Your task to perform on an android device: Go to Reddit.com Image 0: 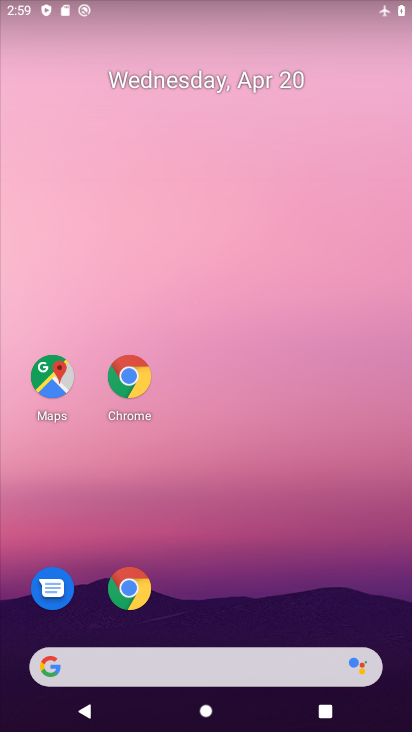
Step 0: drag from (328, 627) to (335, 49)
Your task to perform on an android device: Go to Reddit.com Image 1: 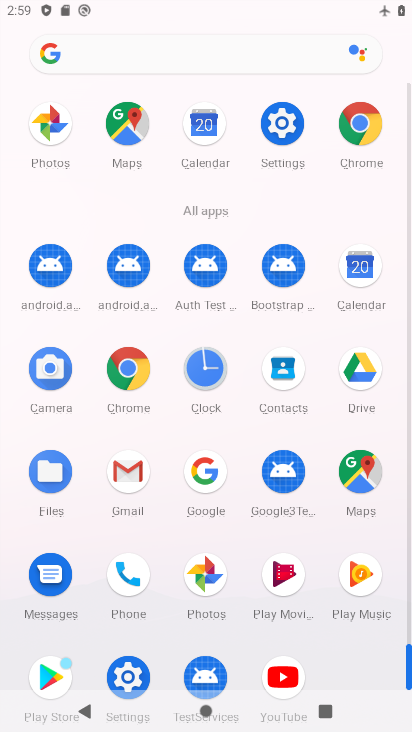
Step 1: click (125, 380)
Your task to perform on an android device: Go to Reddit.com Image 2: 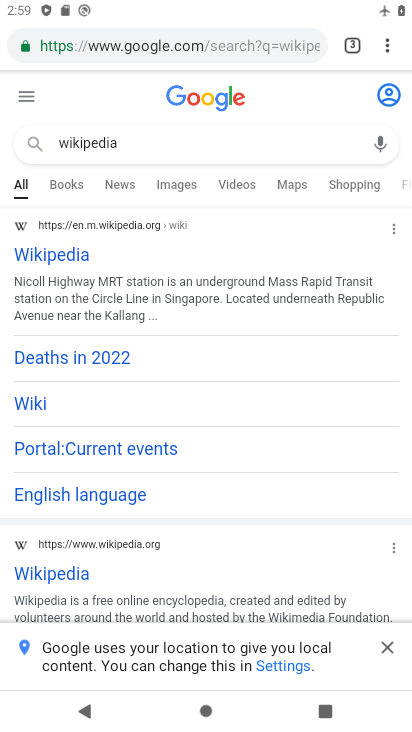
Step 2: click (197, 146)
Your task to perform on an android device: Go to Reddit.com Image 3: 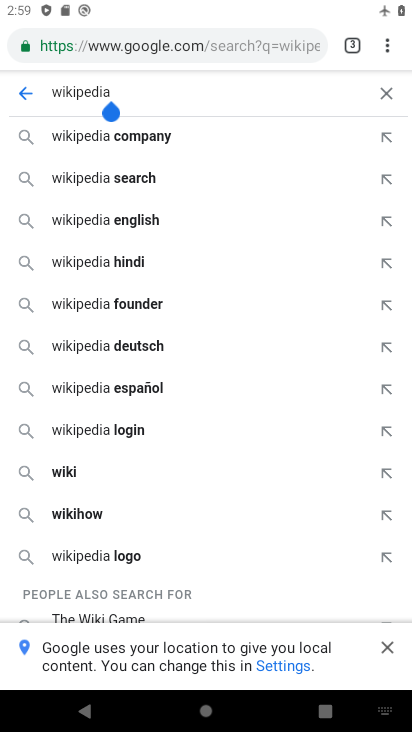
Step 3: click (390, 93)
Your task to perform on an android device: Go to Reddit.com Image 4: 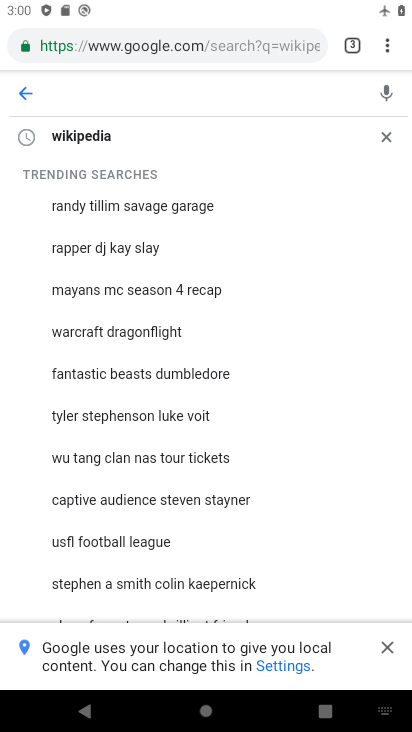
Step 4: type "reddit"
Your task to perform on an android device: Go to Reddit.com Image 5: 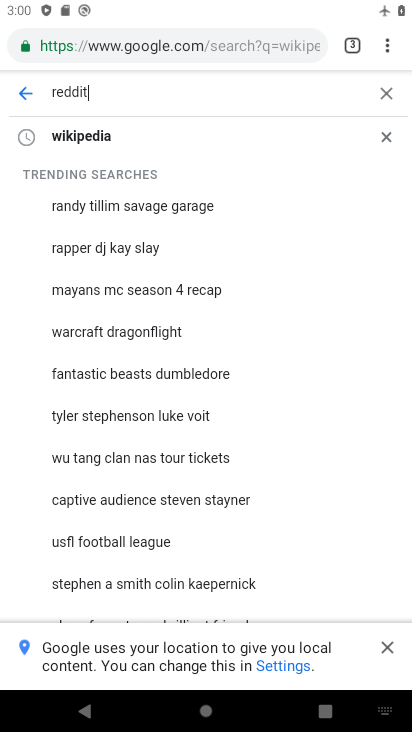
Step 5: click (210, 49)
Your task to perform on an android device: Go to Reddit.com Image 6: 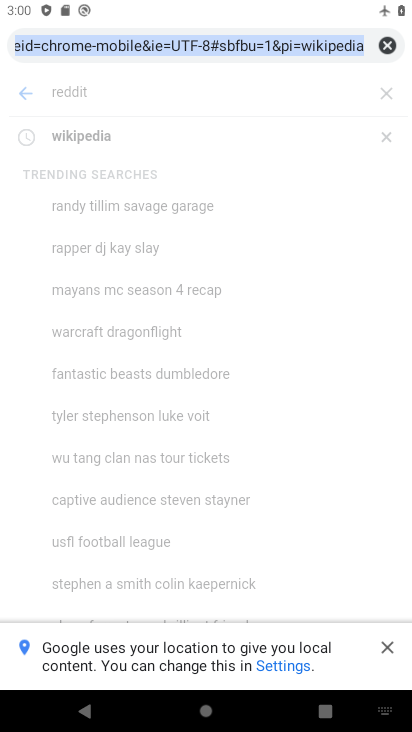
Step 6: click (389, 47)
Your task to perform on an android device: Go to Reddit.com Image 7: 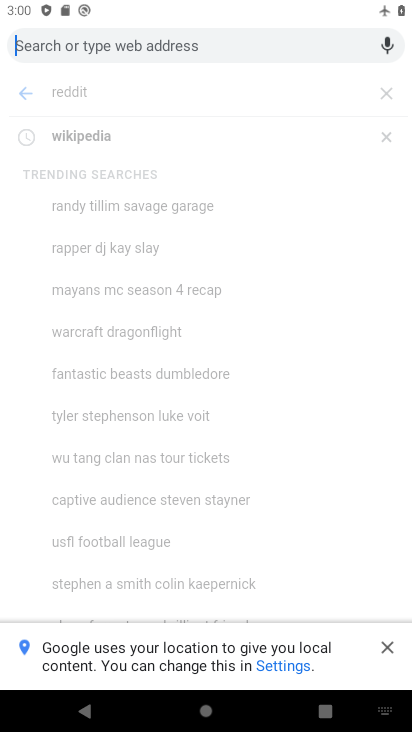
Step 7: type "reddit"
Your task to perform on an android device: Go to Reddit.com Image 8: 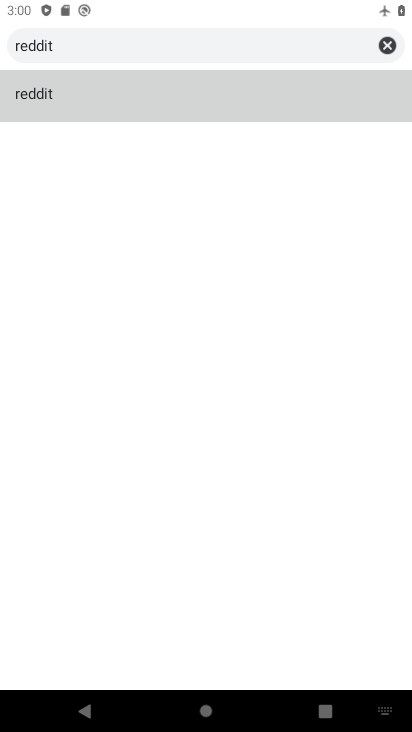
Step 8: click (36, 96)
Your task to perform on an android device: Go to Reddit.com Image 9: 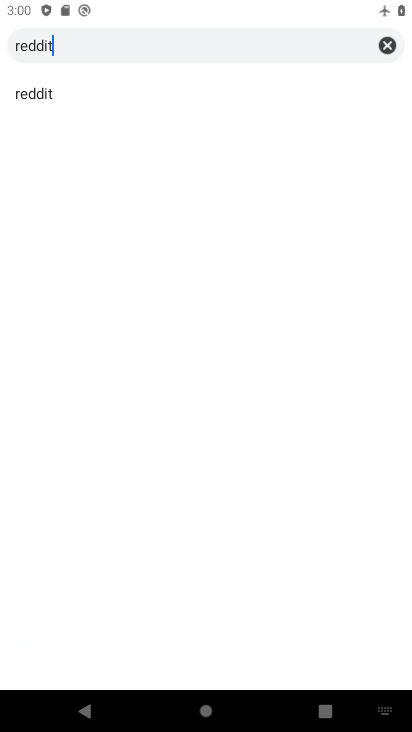
Step 9: click (66, 91)
Your task to perform on an android device: Go to Reddit.com Image 10: 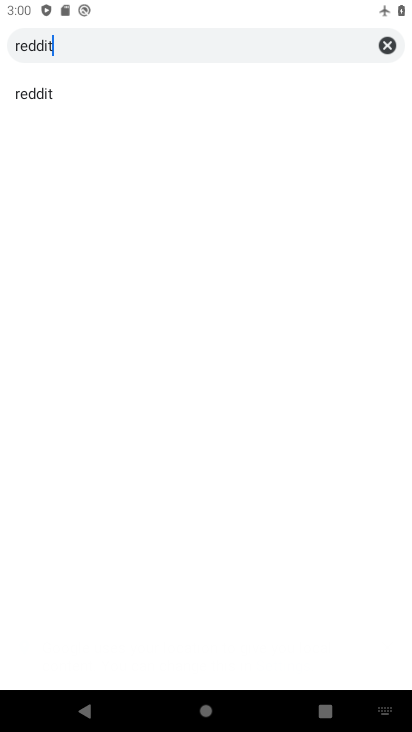
Step 10: click (393, 50)
Your task to perform on an android device: Go to Reddit.com Image 11: 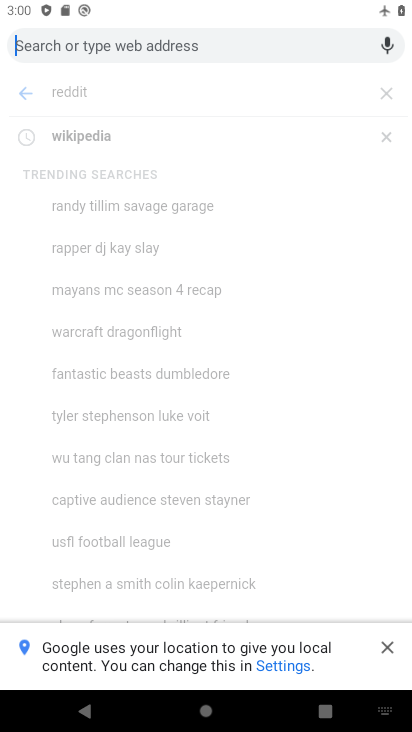
Step 11: type "reddit.com"
Your task to perform on an android device: Go to Reddit.com Image 12: 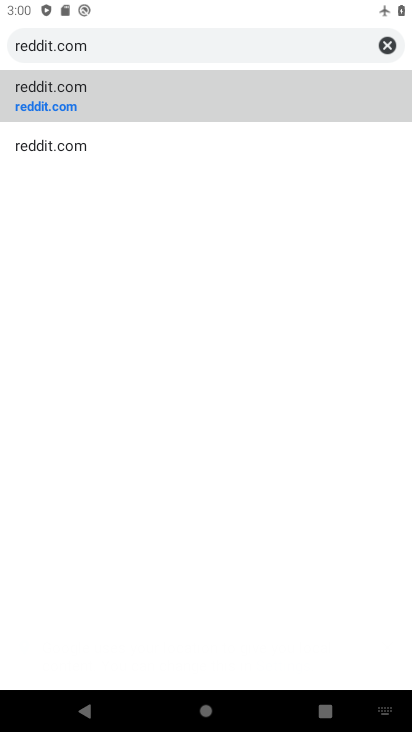
Step 12: click (101, 113)
Your task to perform on an android device: Go to Reddit.com Image 13: 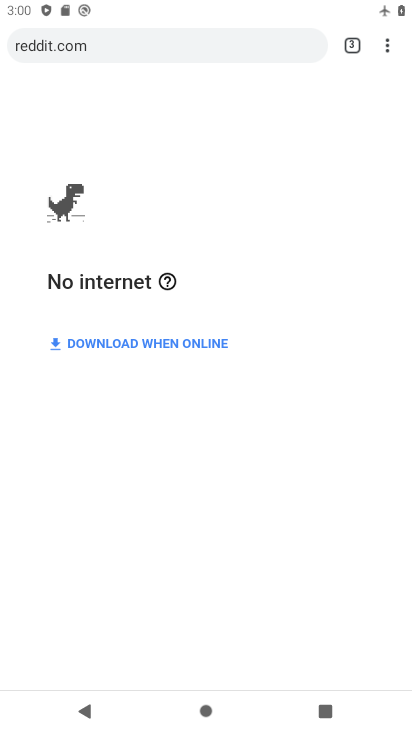
Step 13: task complete